Your task to perform on an android device: When is my next appointment? Image 0: 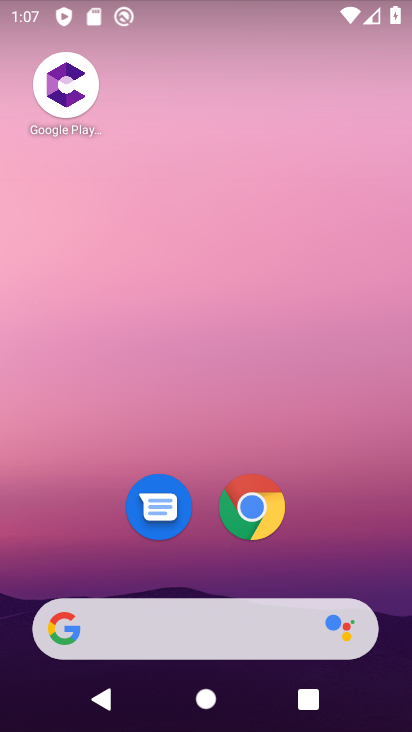
Step 0: drag from (402, 613) to (339, 76)
Your task to perform on an android device: When is my next appointment? Image 1: 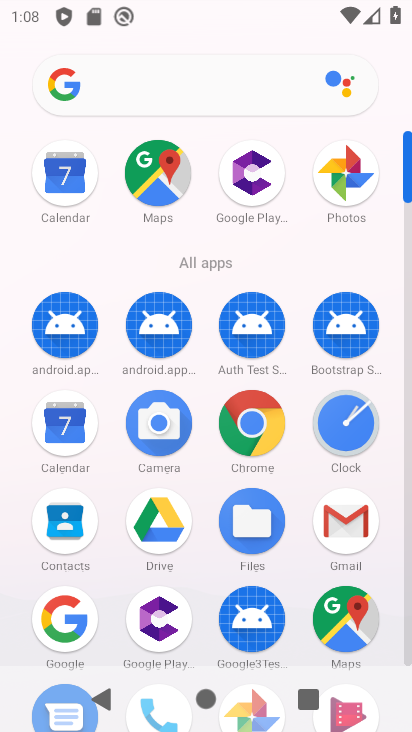
Step 1: click (408, 653)
Your task to perform on an android device: When is my next appointment? Image 2: 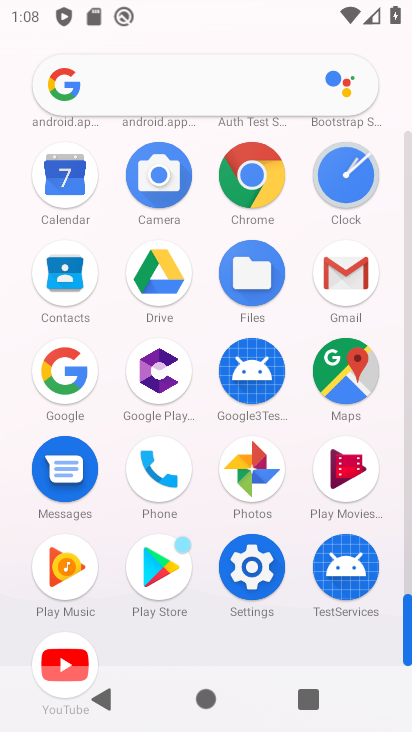
Step 2: click (62, 174)
Your task to perform on an android device: When is my next appointment? Image 3: 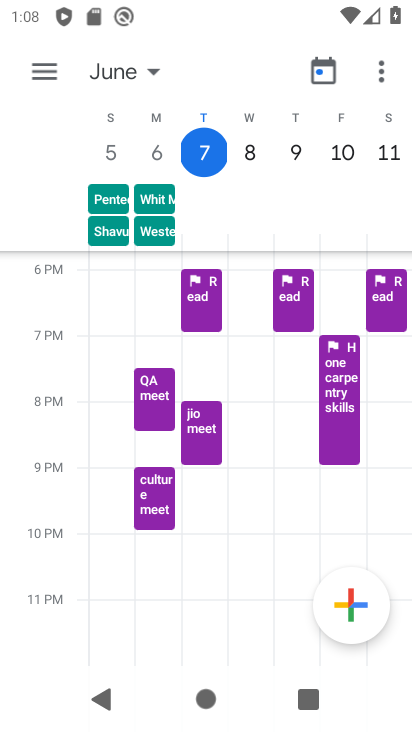
Step 3: click (43, 73)
Your task to perform on an android device: When is my next appointment? Image 4: 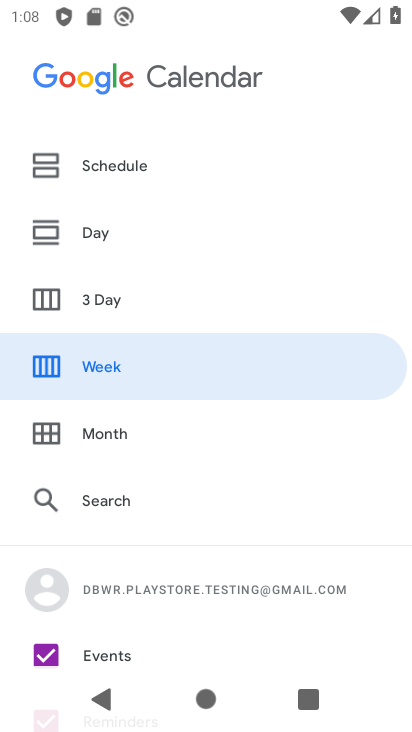
Step 4: click (117, 160)
Your task to perform on an android device: When is my next appointment? Image 5: 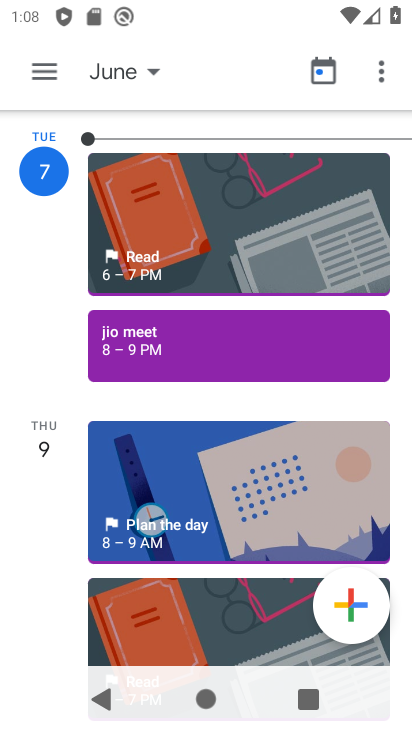
Step 5: task complete